Your task to perform on an android device: Clear all items from cart on walmart.com. Add razer kraken to the cart on walmart.com Image 0: 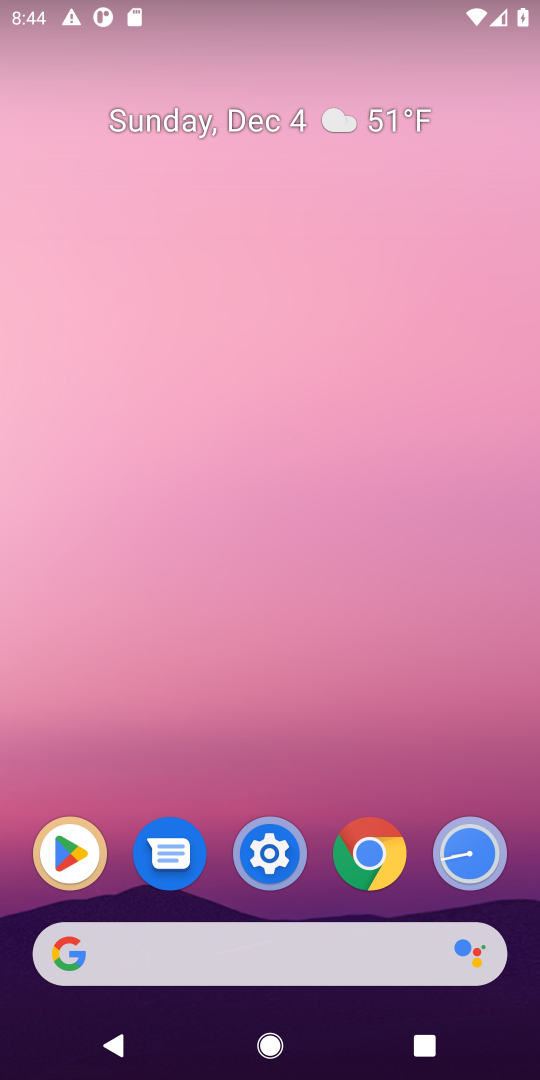
Step 0: click (361, 859)
Your task to perform on an android device: Clear all items from cart on walmart.com. Add razer kraken to the cart on walmart.com Image 1: 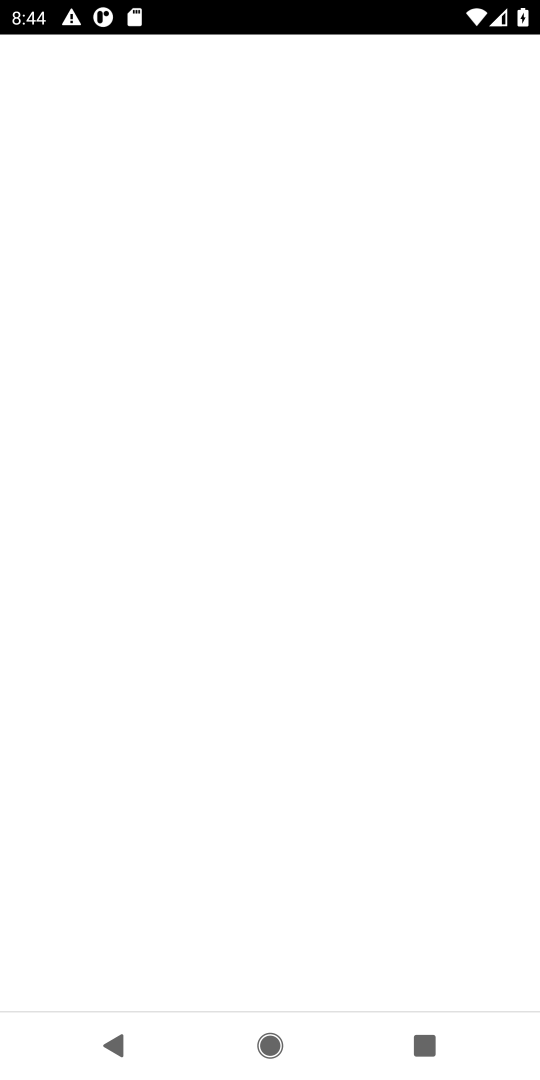
Step 1: task complete